Your task to perform on an android device: turn off translation in the chrome app Image 0: 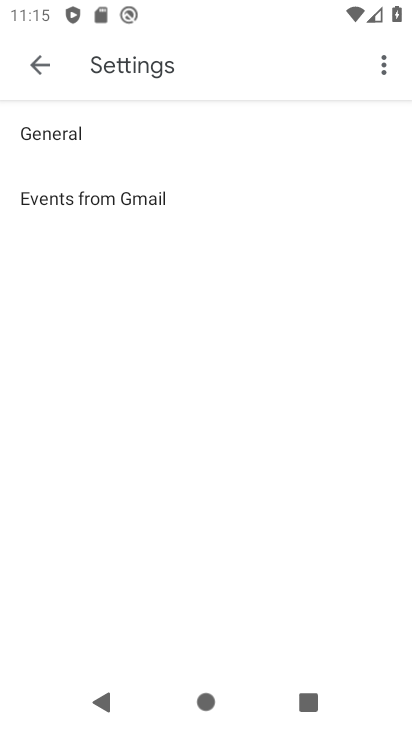
Step 0: press home button
Your task to perform on an android device: turn off translation in the chrome app Image 1: 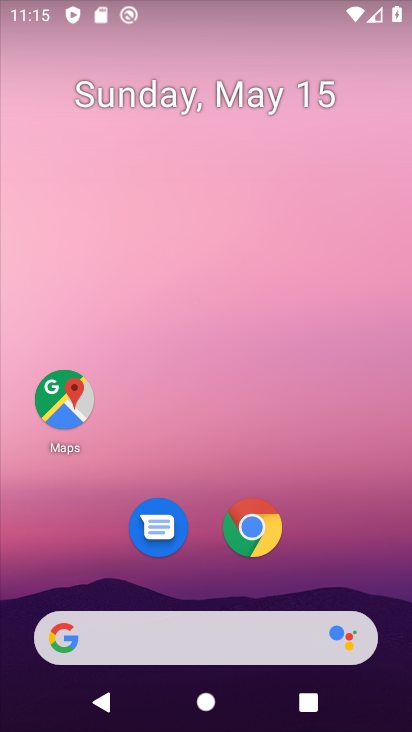
Step 1: click (276, 527)
Your task to perform on an android device: turn off translation in the chrome app Image 2: 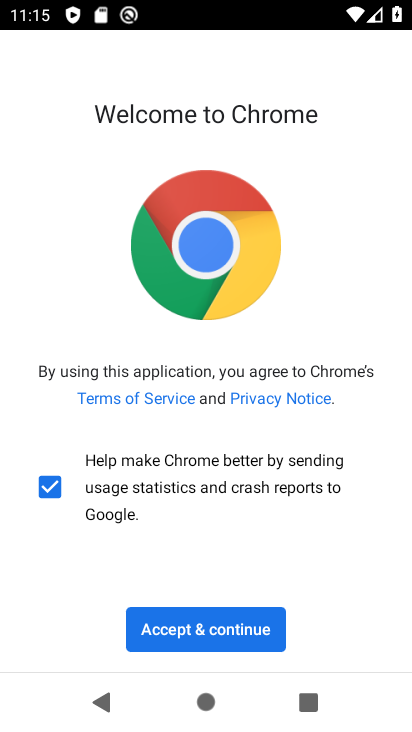
Step 2: click (194, 627)
Your task to perform on an android device: turn off translation in the chrome app Image 3: 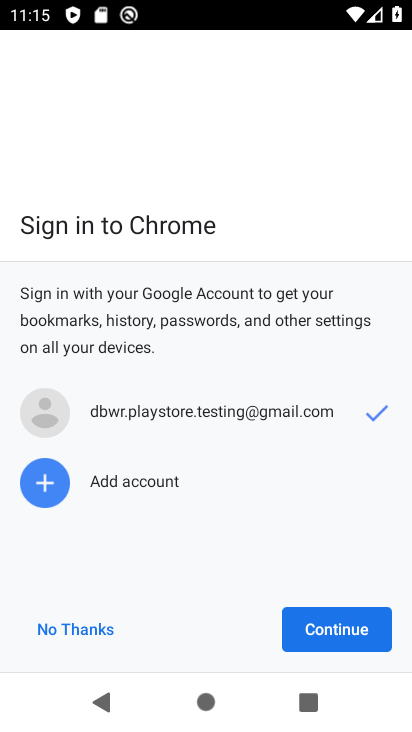
Step 3: click (308, 626)
Your task to perform on an android device: turn off translation in the chrome app Image 4: 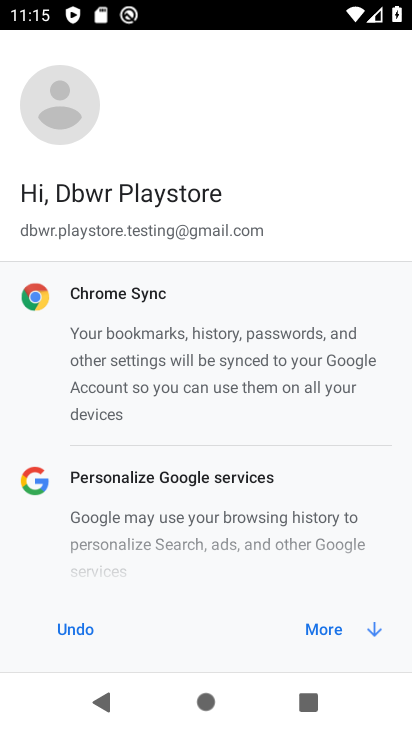
Step 4: click (323, 626)
Your task to perform on an android device: turn off translation in the chrome app Image 5: 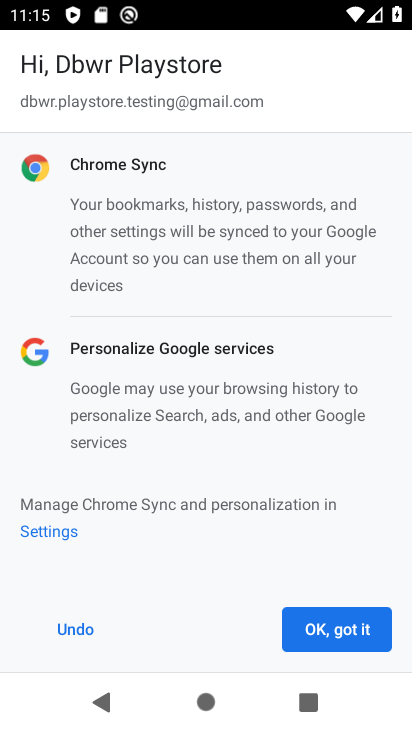
Step 5: click (323, 626)
Your task to perform on an android device: turn off translation in the chrome app Image 6: 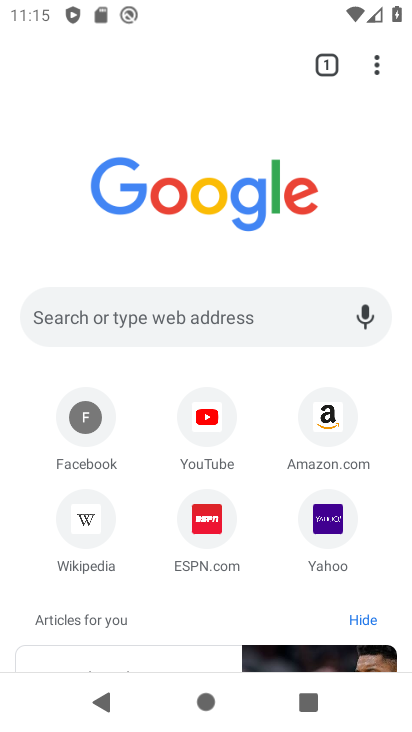
Step 6: click (369, 70)
Your task to perform on an android device: turn off translation in the chrome app Image 7: 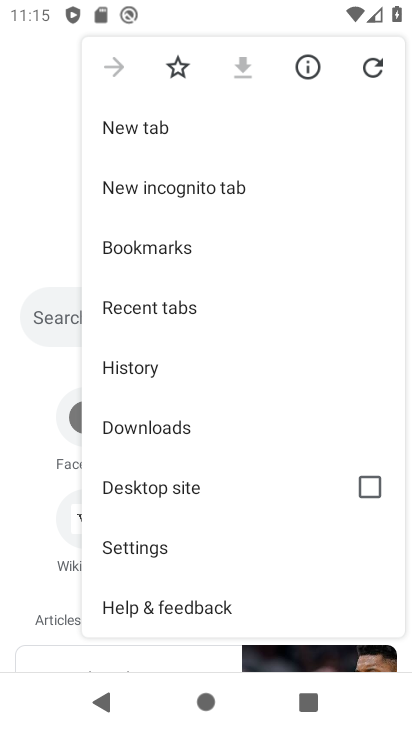
Step 7: click (195, 543)
Your task to perform on an android device: turn off translation in the chrome app Image 8: 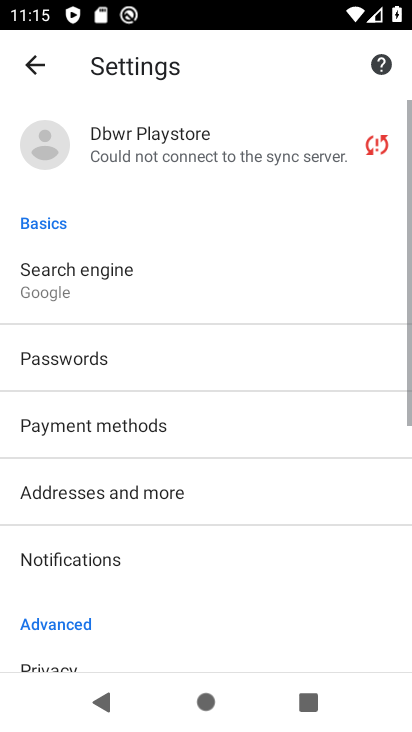
Step 8: drag from (208, 518) to (216, 347)
Your task to perform on an android device: turn off translation in the chrome app Image 9: 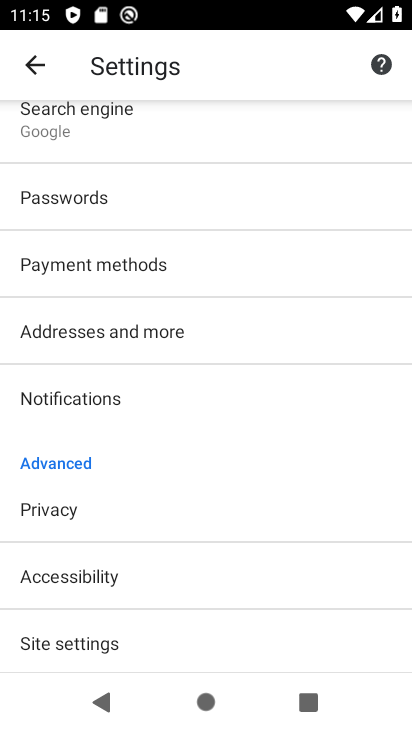
Step 9: drag from (129, 543) to (169, 244)
Your task to perform on an android device: turn off translation in the chrome app Image 10: 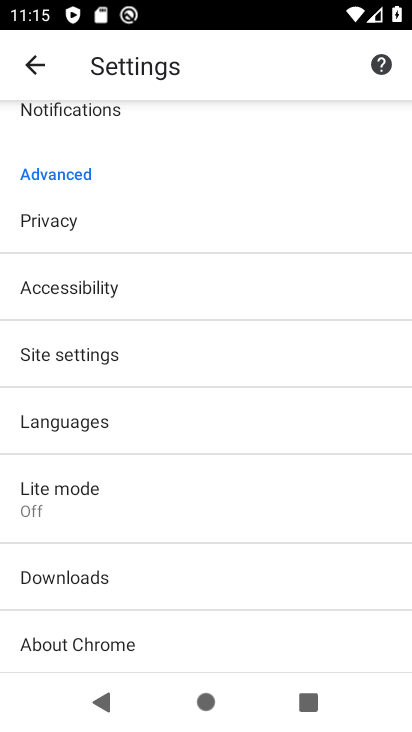
Step 10: click (169, 410)
Your task to perform on an android device: turn off translation in the chrome app Image 11: 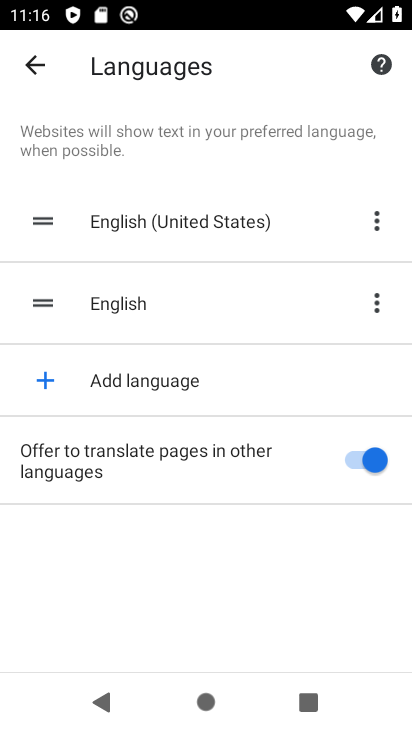
Step 11: click (336, 445)
Your task to perform on an android device: turn off translation in the chrome app Image 12: 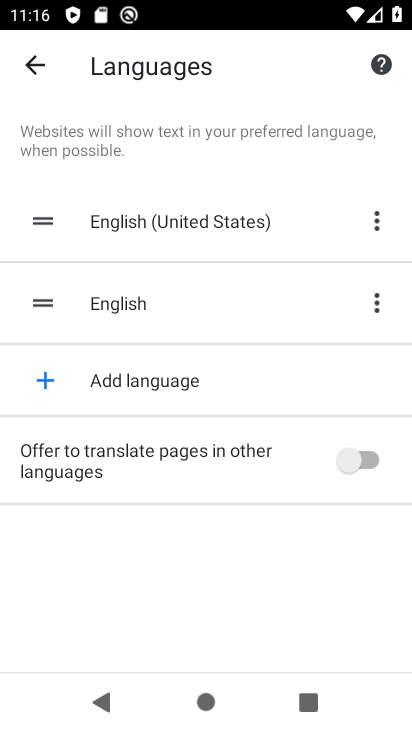
Step 12: task complete